Your task to perform on an android device: turn on the 12-hour format for clock Image 0: 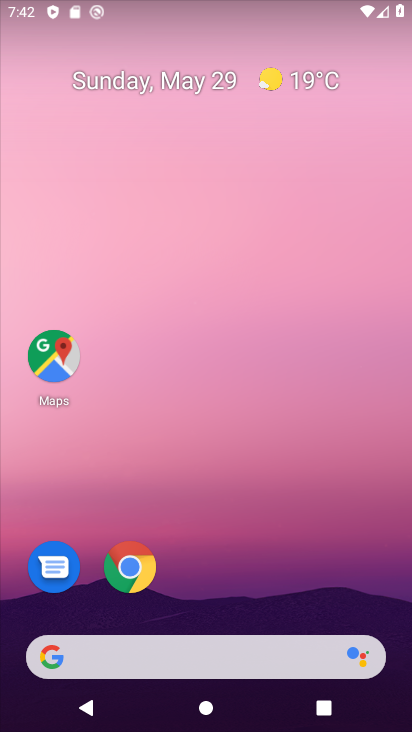
Step 0: drag from (389, 691) to (352, 218)
Your task to perform on an android device: turn on the 12-hour format for clock Image 1: 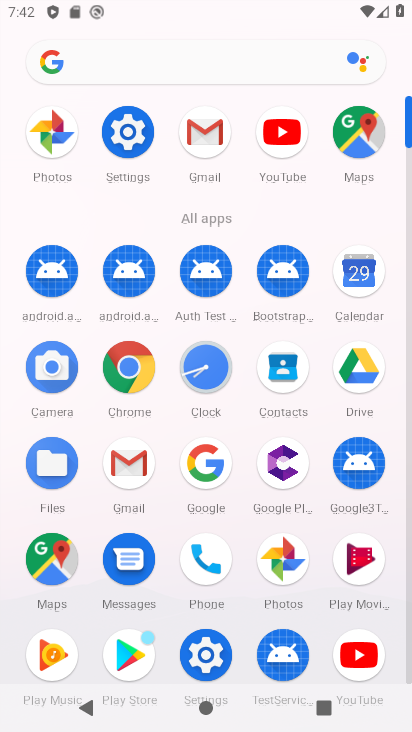
Step 1: click (210, 364)
Your task to perform on an android device: turn on the 12-hour format for clock Image 2: 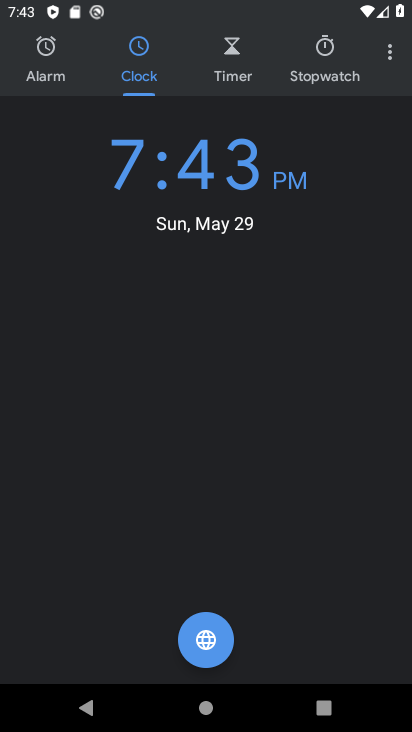
Step 2: click (388, 63)
Your task to perform on an android device: turn on the 12-hour format for clock Image 3: 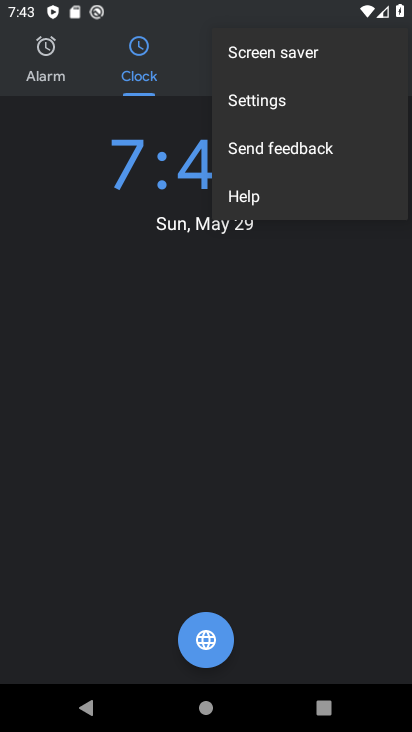
Step 3: click (391, 56)
Your task to perform on an android device: turn on the 12-hour format for clock Image 4: 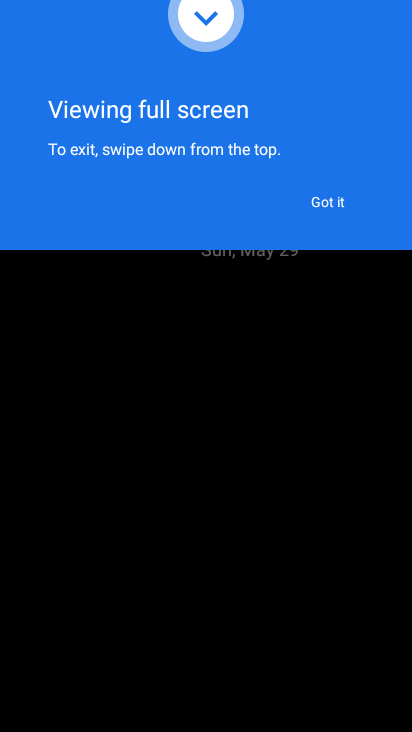
Step 4: press back button
Your task to perform on an android device: turn on the 12-hour format for clock Image 5: 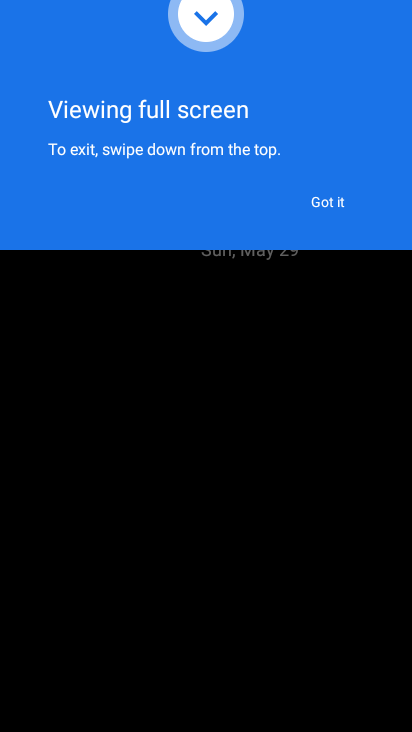
Step 5: click (312, 203)
Your task to perform on an android device: turn on the 12-hour format for clock Image 6: 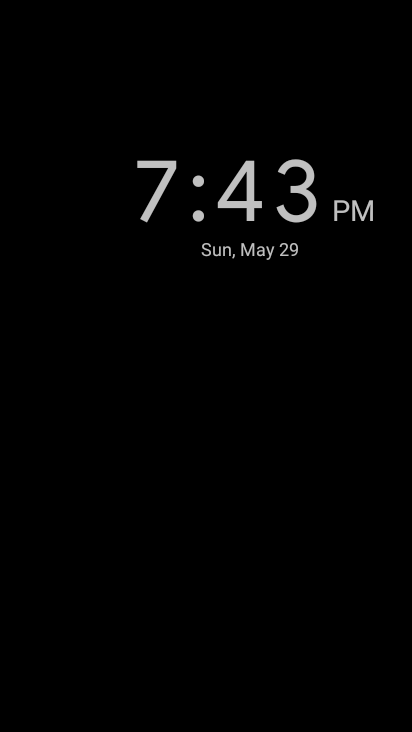
Step 6: drag from (348, 174) to (317, 617)
Your task to perform on an android device: turn on the 12-hour format for clock Image 7: 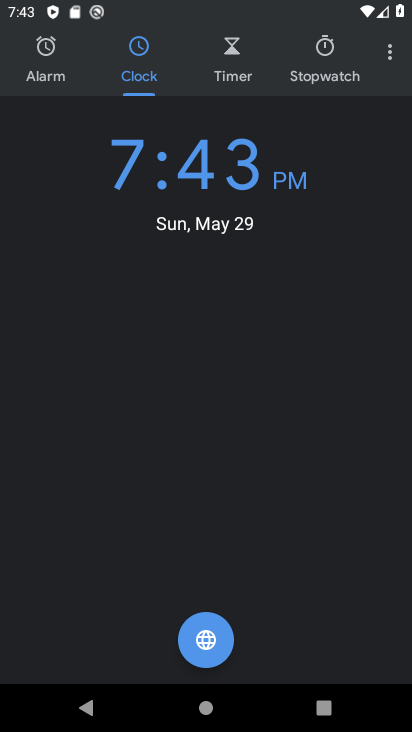
Step 7: click (390, 51)
Your task to perform on an android device: turn on the 12-hour format for clock Image 8: 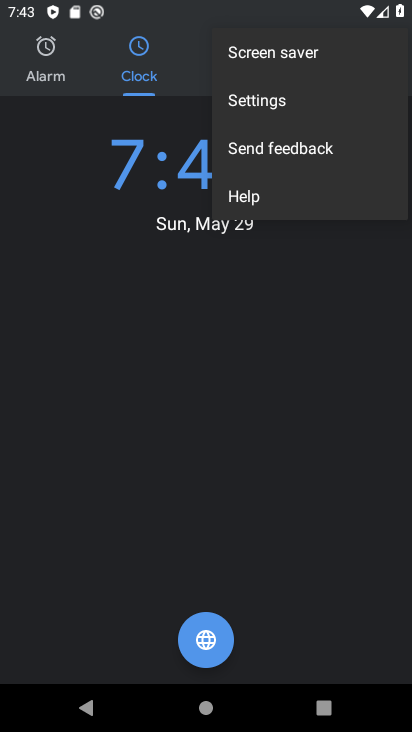
Step 8: click (256, 105)
Your task to perform on an android device: turn on the 12-hour format for clock Image 9: 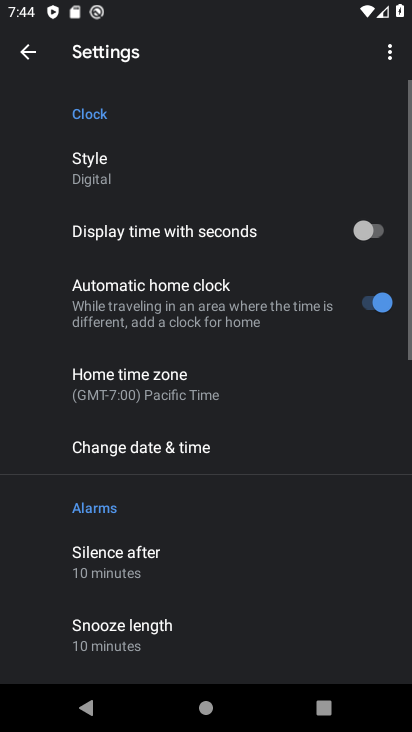
Step 9: click (136, 452)
Your task to perform on an android device: turn on the 12-hour format for clock Image 10: 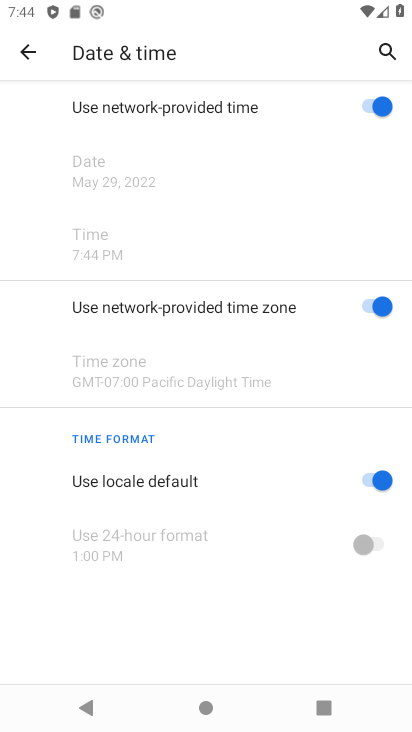
Step 10: task complete